Your task to perform on an android device: uninstall "PlayWell" Image 0: 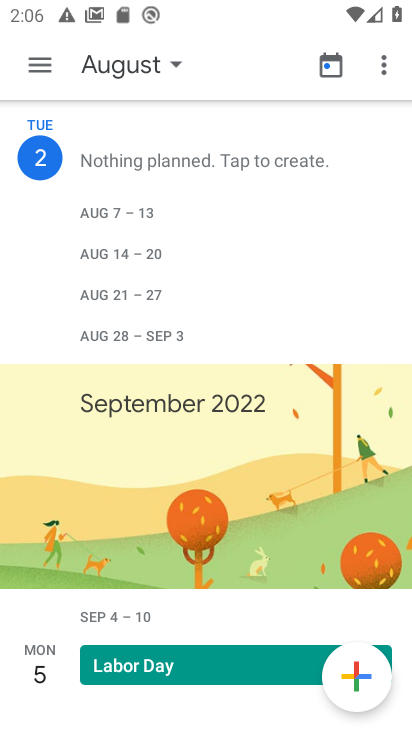
Step 0: press home button
Your task to perform on an android device: uninstall "PlayWell" Image 1: 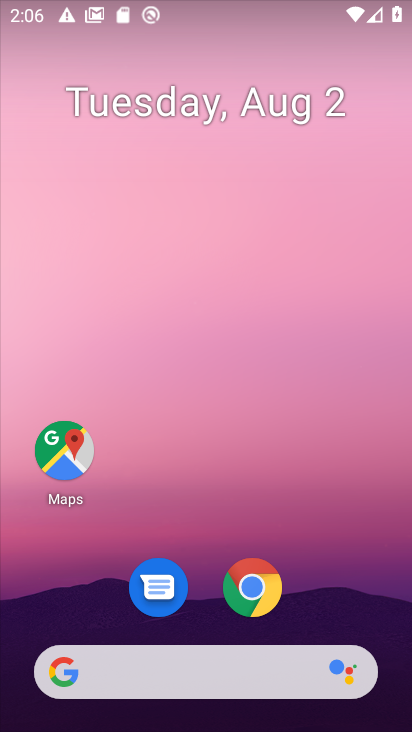
Step 1: drag from (208, 541) to (270, 113)
Your task to perform on an android device: uninstall "PlayWell" Image 2: 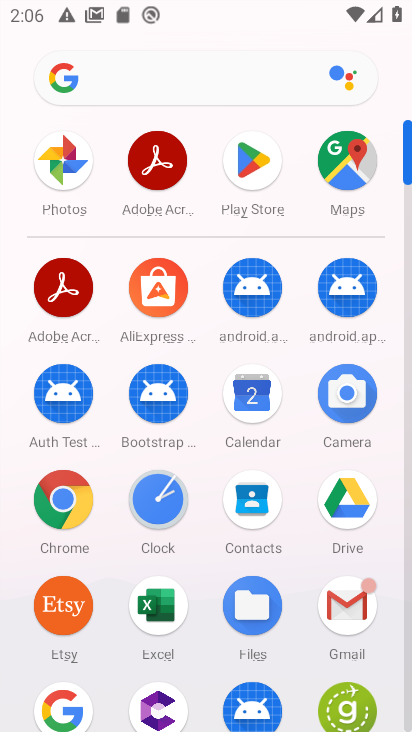
Step 2: click (264, 165)
Your task to perform on an android device: uninstall "PlayWell" Image 3: 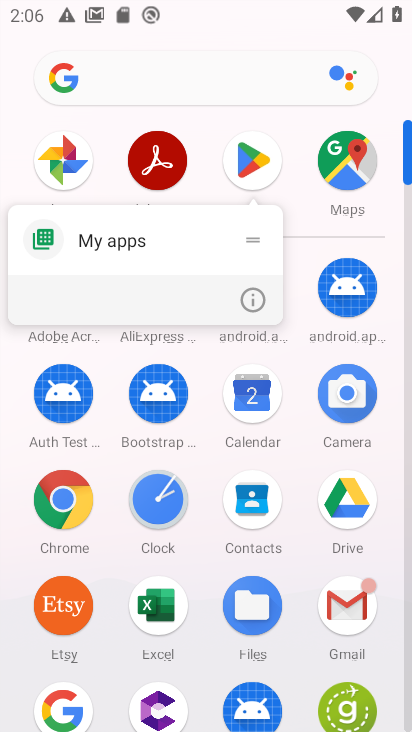
Step 3: click (264, 165)
Your task to perform on an android device: uninstall "PlayWell" Image 4: 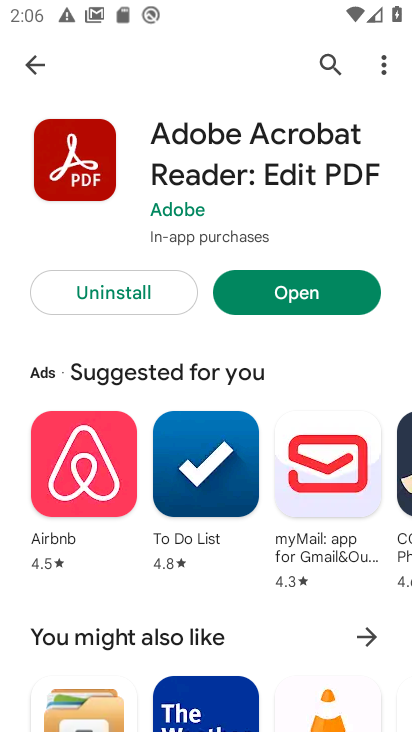
Step 4: drag from (324, 68) to (377, 68)
Your task to perform on an android device: uninstall "PlayWell" Image 5: 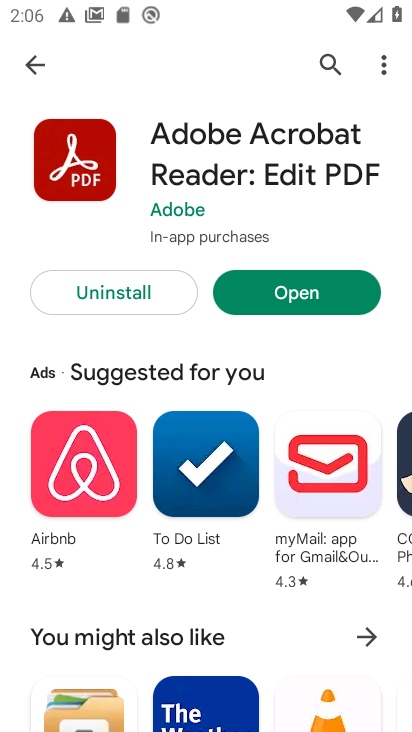
Step 5: click (322, 68)
Your task to perform on an android device: uninstall "PlayWell" Image 6: 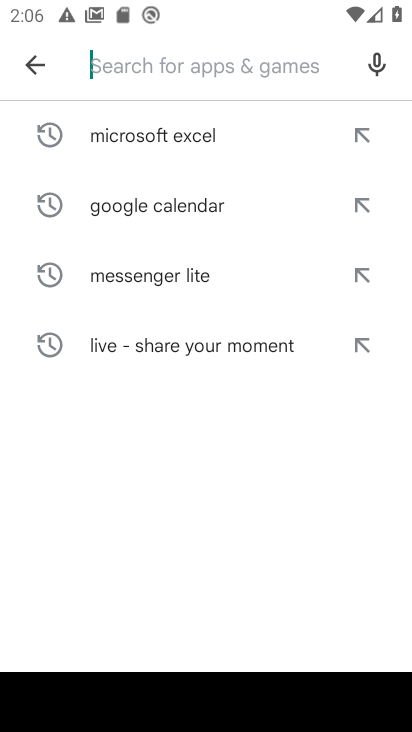
Step 6: type "PlayWell"
Your task to perform on an android device: uninstall "PlayWell" Image 7: 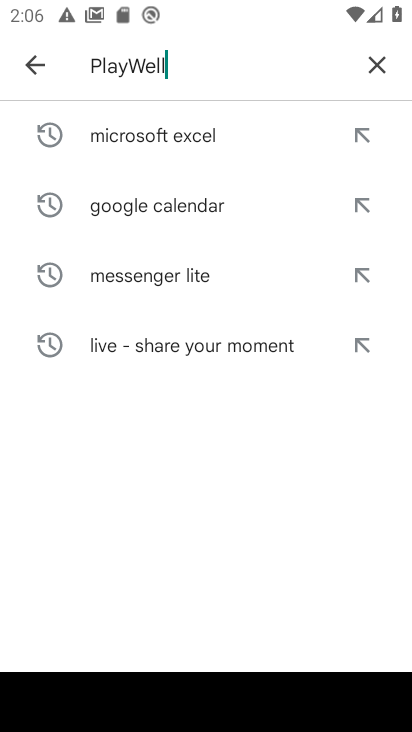
Step 7: type ""
Your task to perform on an android device: uninstall "PlayWell" Image 8: 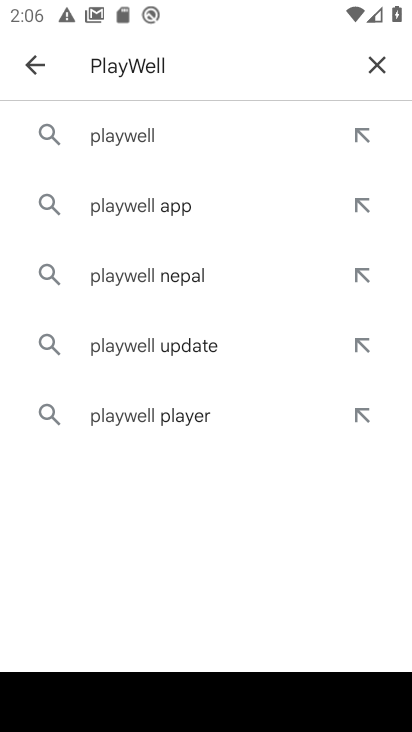
Step 8: click (157, 137)
Your task to perform on an android device: uninstall "PlayWell" Image 9: 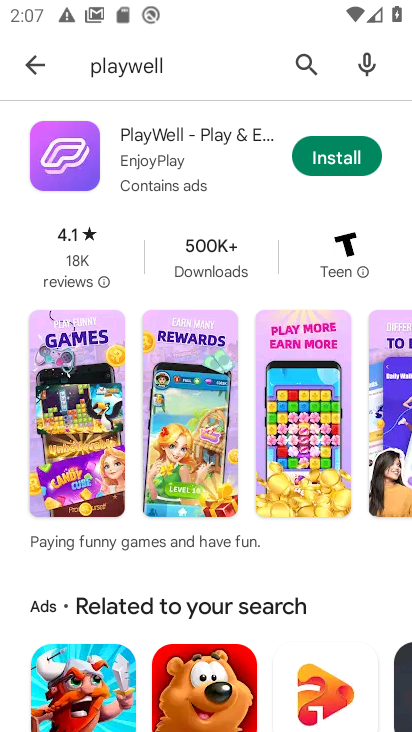
Step 9: task complete